Your task to perform on an android device: toggle notifications settings in the gmail app Image 0: 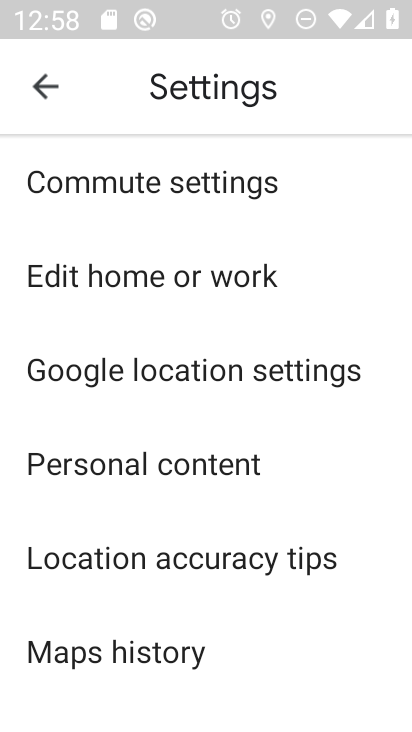
Step 0: press home button
Your task to perform on an android device: toggle notifications settings in the gmail app Image 1: 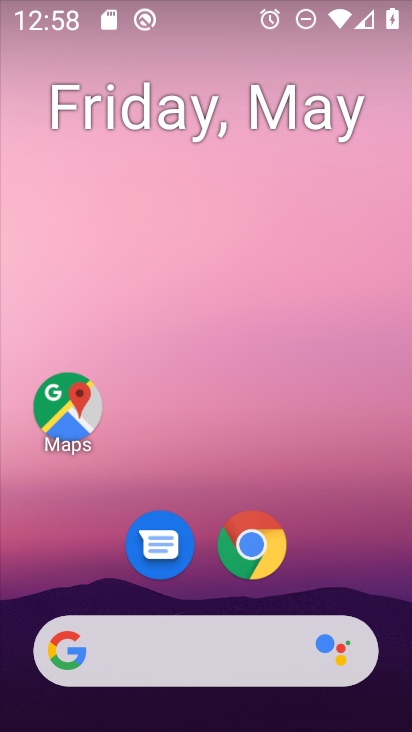
Step 1: drag from (312, 565) to (256, 173)
Your task to perform on an android device: toggle notifications settings in the gmail app Image 2: 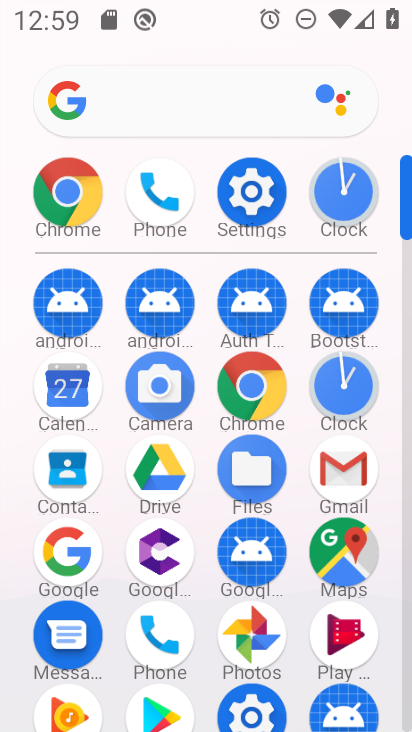
Step 2: click (351, 457)
Your task to perform on an android device: toggle notifications settings in the gmail app Image 3: 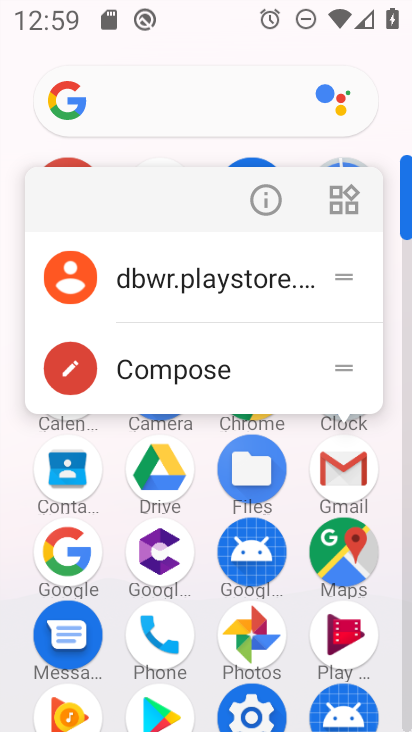
Step 3: click (341, 463)
Your task to perform on an android device: toggle notifications settings in the gmail app Image 4: 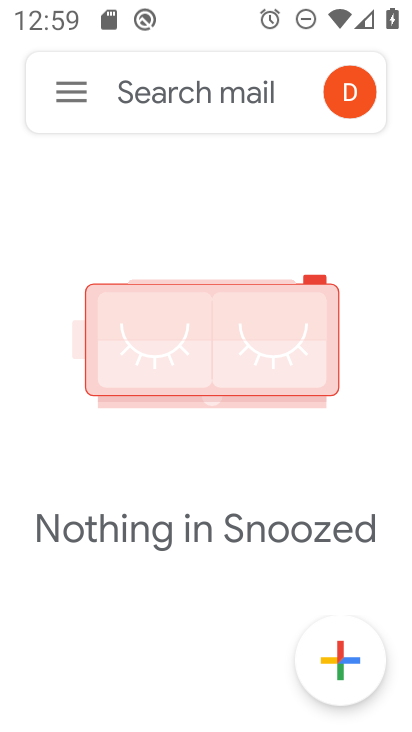
Step 4: click (70, 84)
Your task to perform on an android device: toggle notifications settings in the gmail app Image 5: 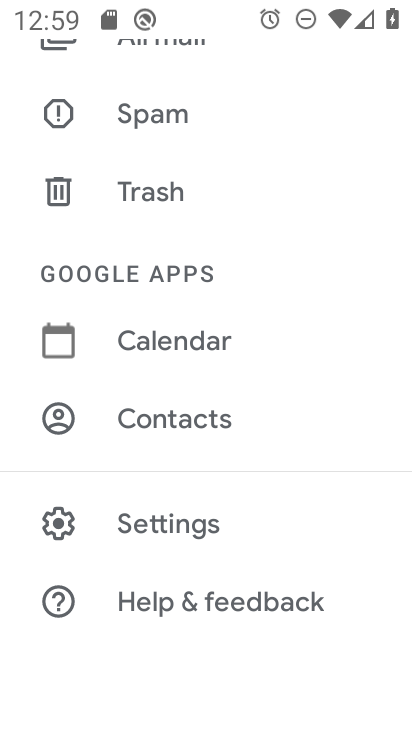
Step 5: click (180, 516)
Your task to perform on an android device: toggle notifications settings in the gmail app Image 6: 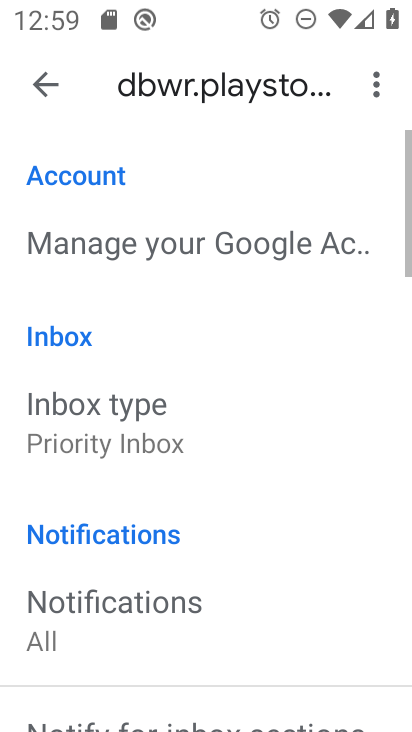
Step 6: click (160, 599)
Your task to perform on an android device: toggle notifications settings in the gmail app Image 7: 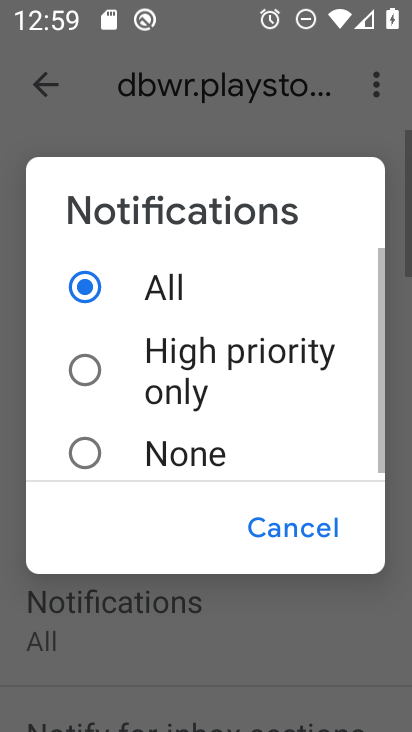
Step 7: click (153, 457)
Your task to perform on an android device: toggle notifications settings in the gmail app Image 8: 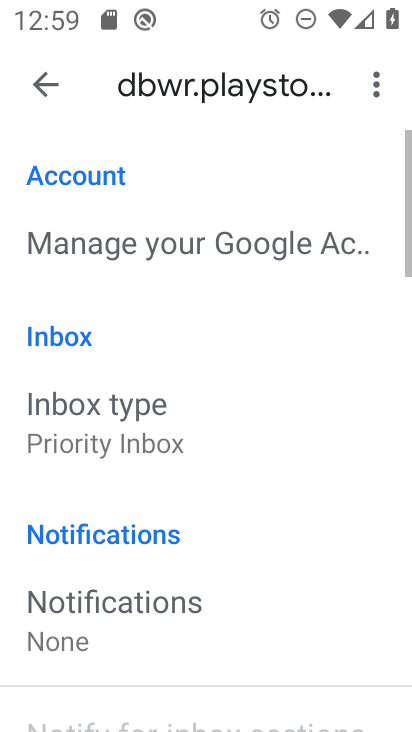
Step 8: task complete